Your task to perform on an android device: Open eBay Image 0: 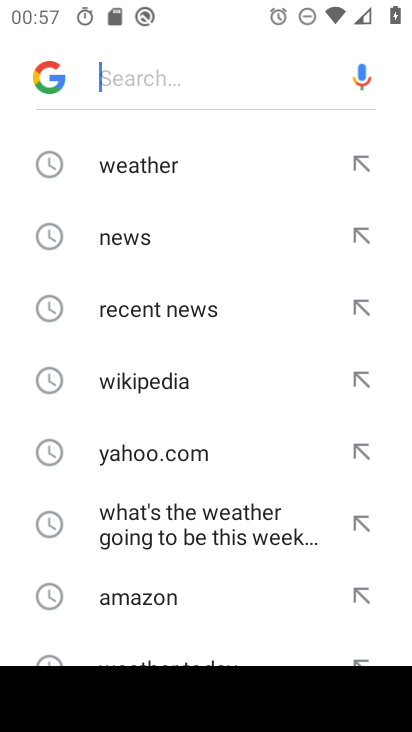
Step 0: type "ebay"
Your task to perform on an android device: Open eBay Image 1: 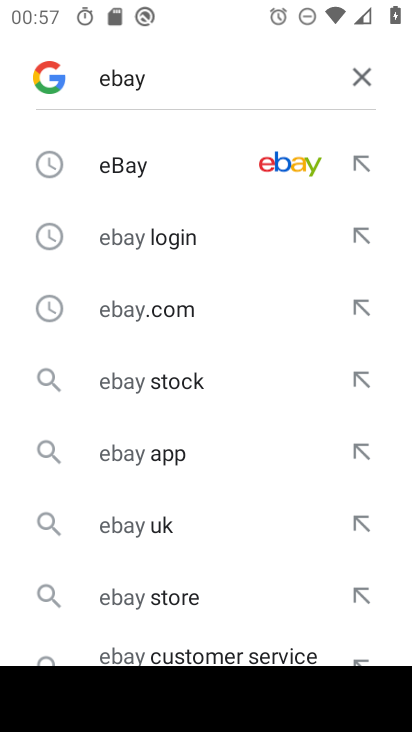
Step 1: click (144, 169)
Your task to perform on an android device: Open eBay Image 2: 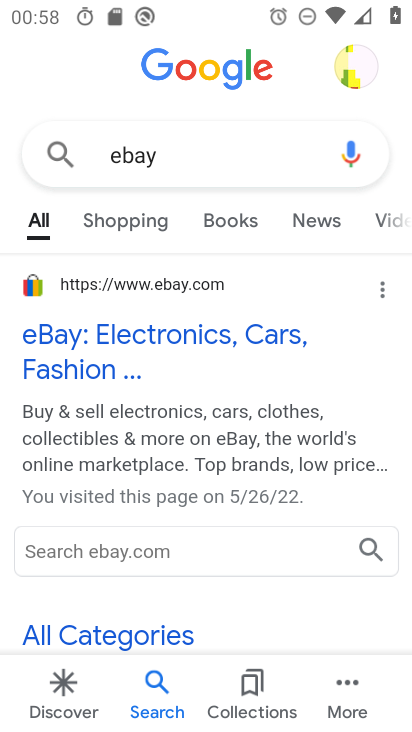
Step 2: click (87, 346)
Your task to perform on an android device: Open eBay Image 3: 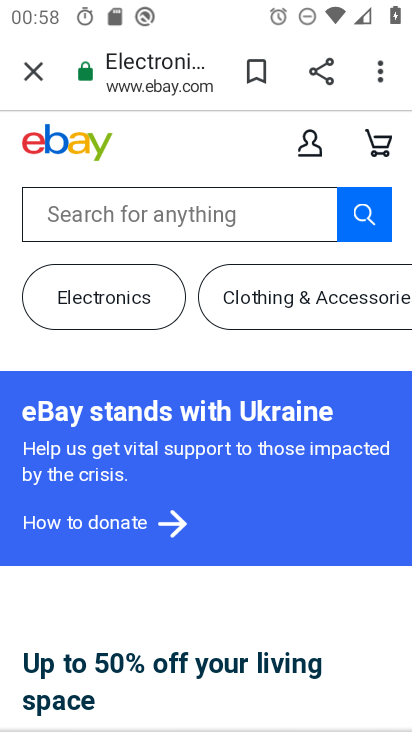
Step 3: task complete